Your task to perform on an android device: When is my next appointment? Image 0: 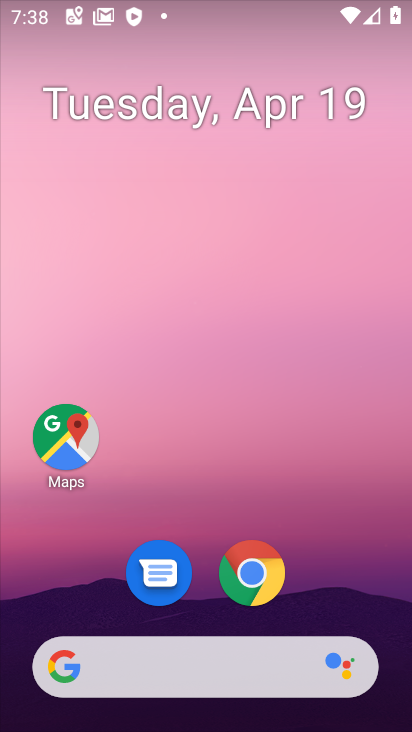
Step 0: drag from (367, 330) to (349, 141)
Your task to perform on an android device: When is my next appointment? Image 1: 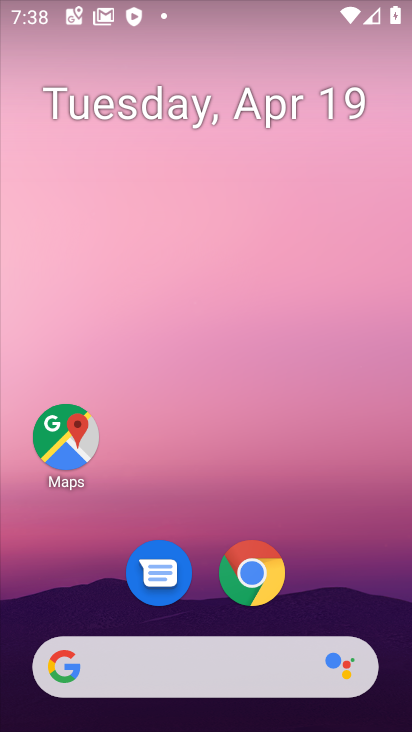
Step 1: click (339, 100)
Your task to perform on an android device: When is my next appointment? Image 2: 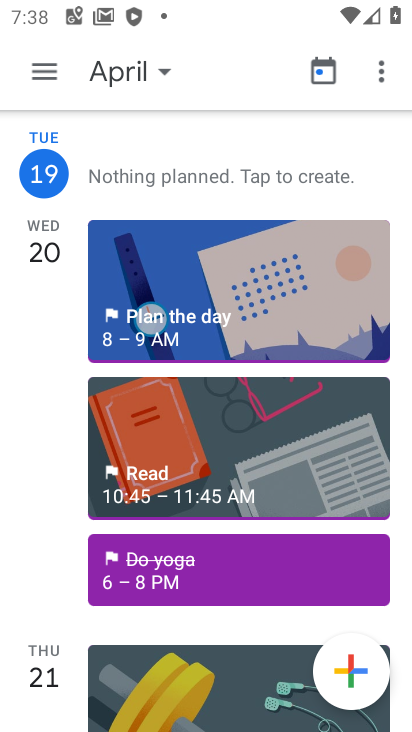
Step 2: click (163, 73)
Your task to perform on an android device: When is my next appointment? Image 3: 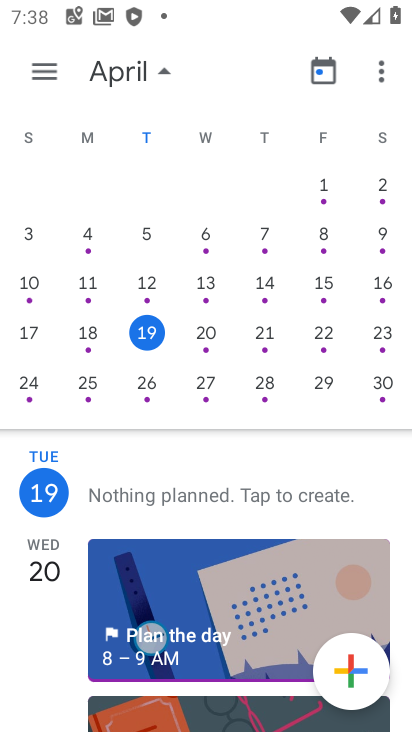
Step 3: click (325, 72)
Your task to perform on an android device: When is my next appointment? Image 4: 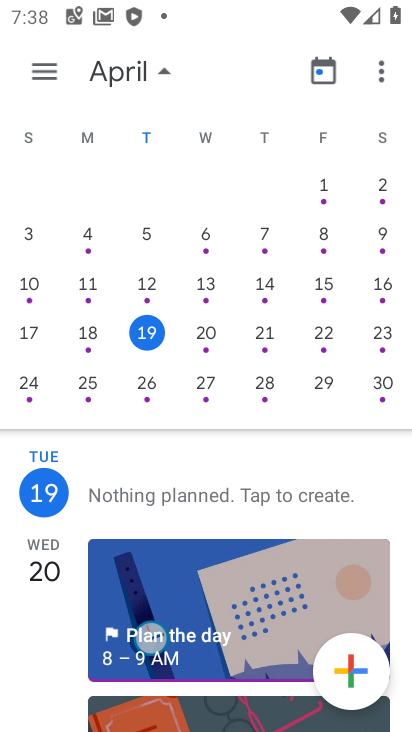
Step 4: click (378, 69)
Your task to perform on an android device: When is my next appointment? Image 5: 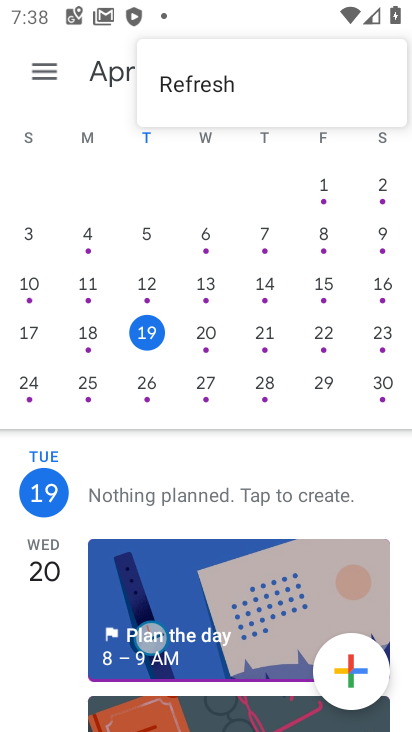
Step 5: click (109, 120)
Your task to perform on an android device: When is my next appointment? Image 6: 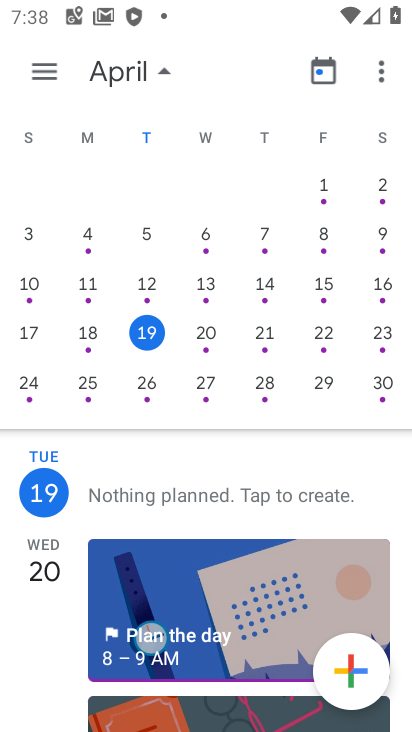
Step 6: click (36, 71)
Your task to perform on an android device: When is my next appointment? Image 7: 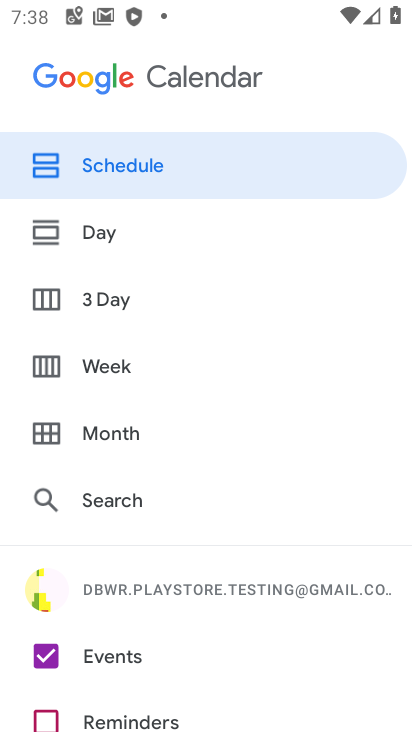
Step 7: task complete